Your task to perform on an android device: Open accessibility settings Image 0: 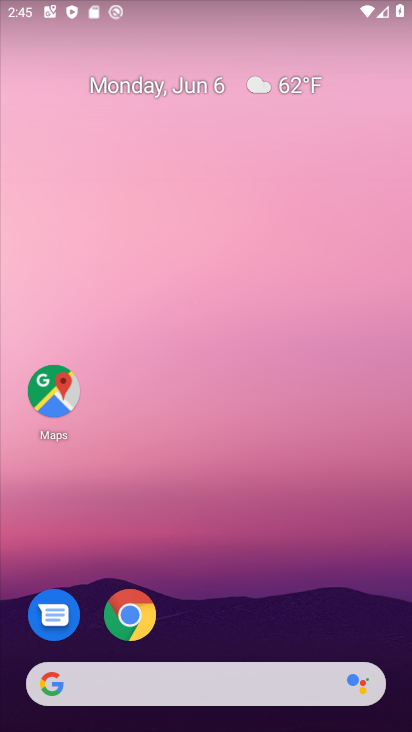
Step 0: drag from (251, 695) to (333, 1)
Your task to perform on an android device: Open accessibility settings Image 1: 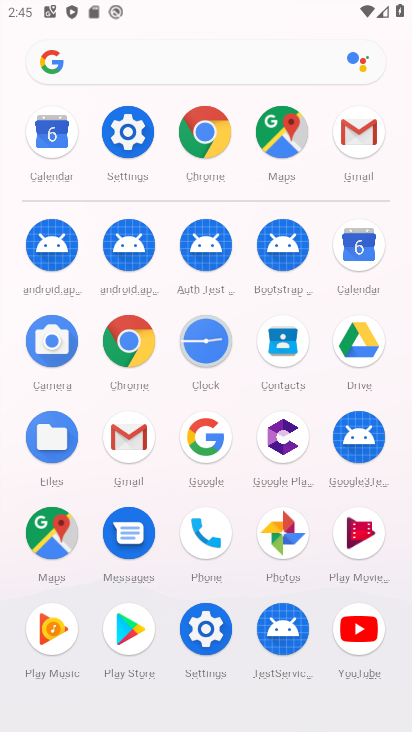
Step 1: click (133, 130)
Your task to perform on an android device: Open accessibility settings Image 2: 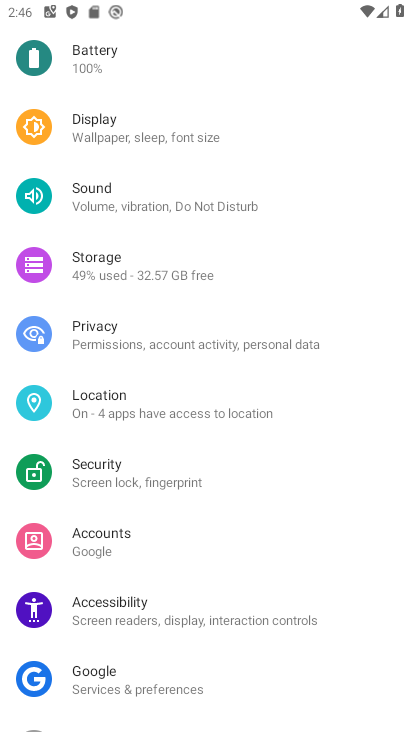
Step 2: click (166, 614)
Your task to perform on an android device: Open accessibility settings Image 3: 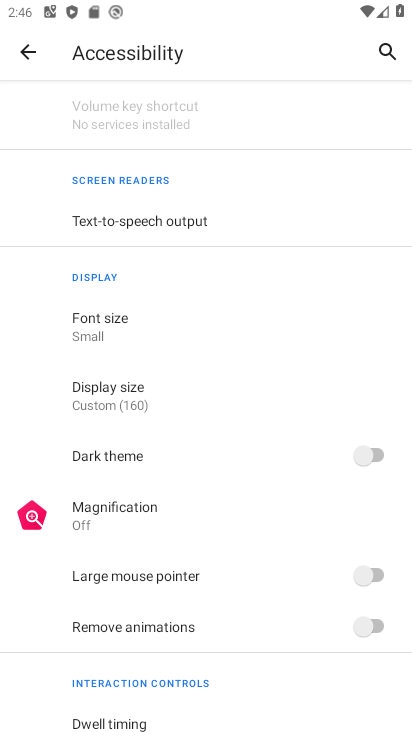
Step 3: task complete